Your task to perform on an android device: turn on wifi Image 0: 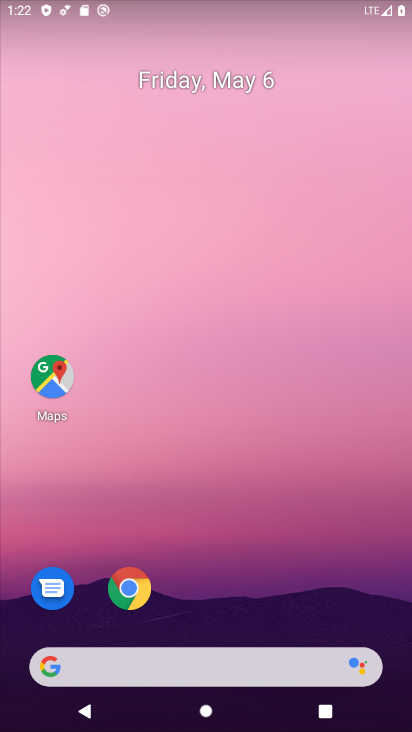
Step 0: drag from (367, 602) to (330, 80)
Your task to perform on an android device: turn on wifi Image 1: 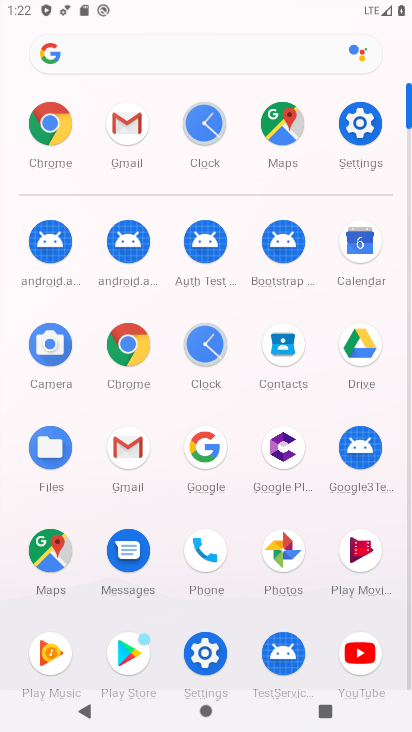
Step 1: click (369, 116)
Your task to perform on an android device: turn on wifi Image 2: 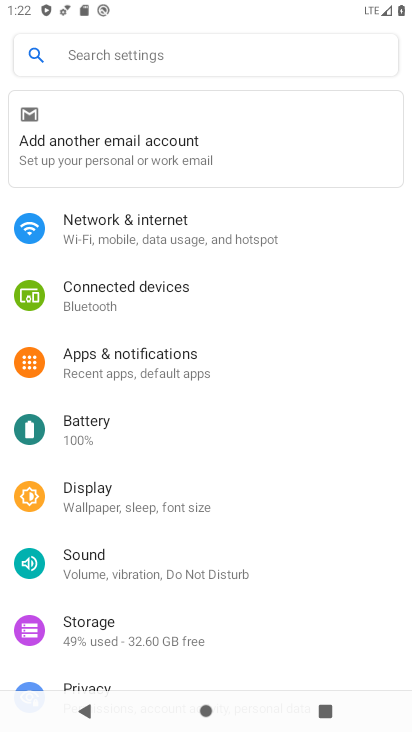
Step 2: click (167, 217)
Your task to perform on an android device: turn on wifi Image 3: 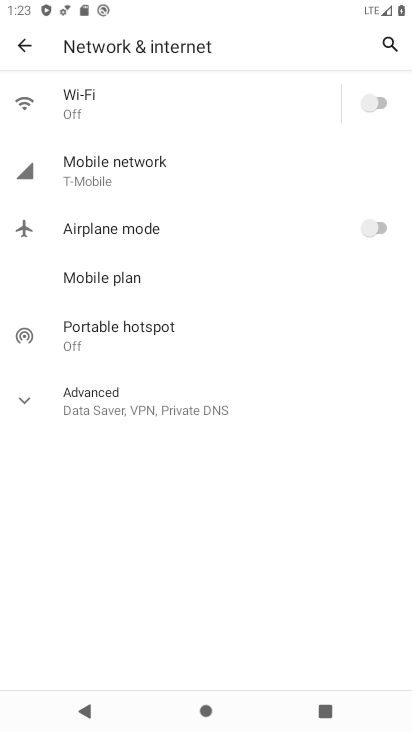
Step 3: click (380, 99)
Your task to perform on an android device: turn on wifi Image 4: 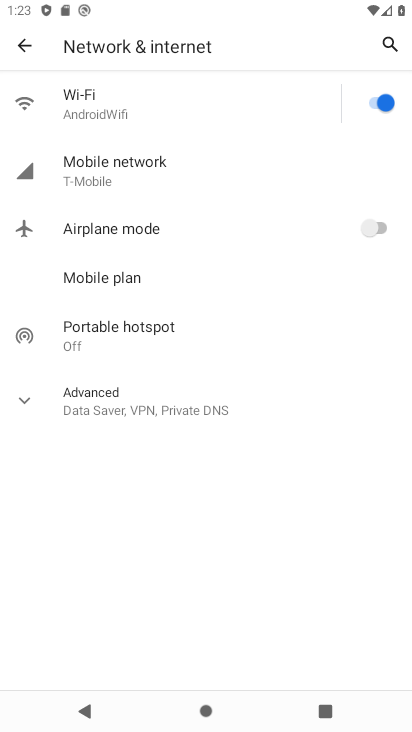
Step 4: task complete